Your task to perform on an android device: add a label to a message in the gmail app Image 0: 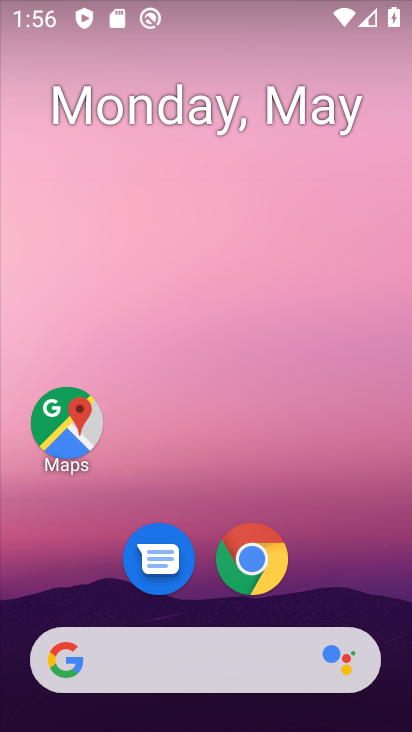
Step 0: drag from (308, 693) to (242, 27)
Your task to perform on an android device: add a label to a message in the gmail app Image 1: 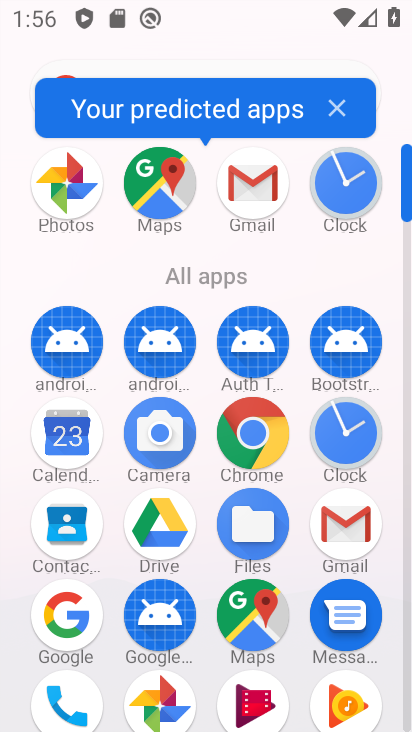
Step 1: click (238, 204)
Your task to perform on an android device: add a label to a message in the gmail app Image 2: 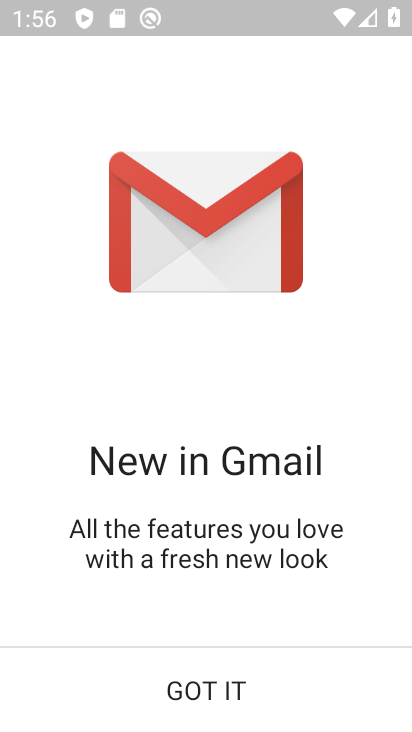
Step 2: click (219, 688)
Your task to perform on an android device: add a label to a message in the gmail app Image 3: 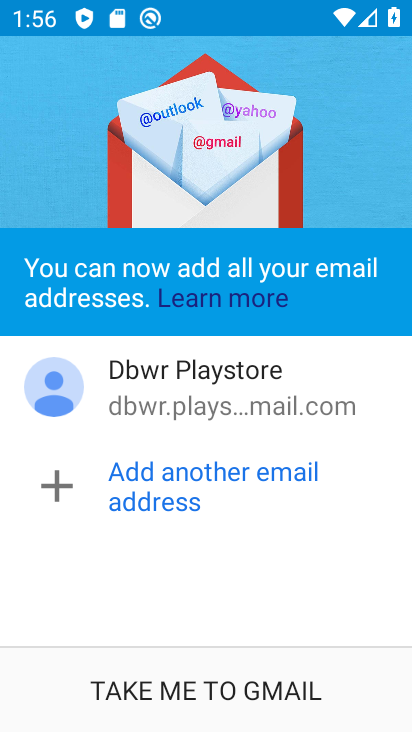
Step 3: click (193, 677)
Your task to perform on an android device: add a label to a message in the gmail app Image 4: 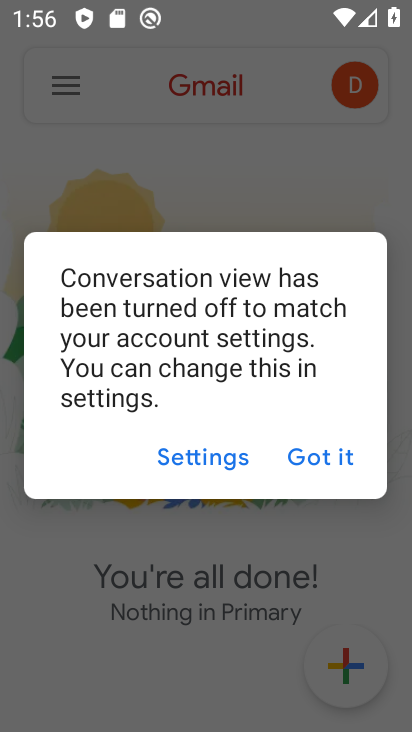
Step 4: click (301, 454)
Your task to perform on an android device: add a label to a message in the gmail app Image 5: 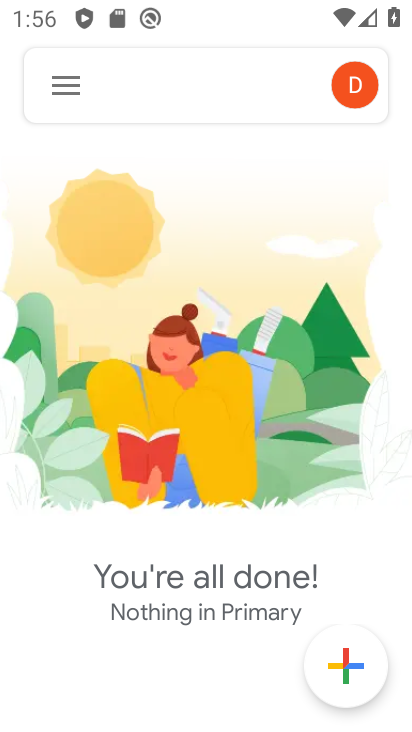
Step 5: click (83, 94)
Your task to perform on an android device: add a label to a message in the gmail app Image 6: 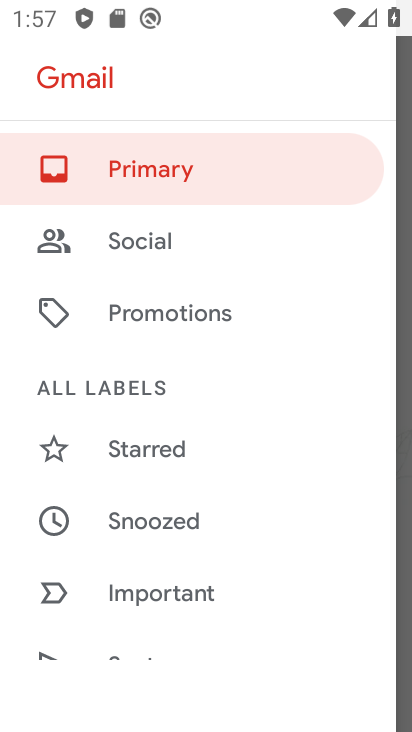
Step 6: drag from (162, 529) to (205, 185)
Your task to perform on an android device: add a label to a message in the gmail app Image 7: 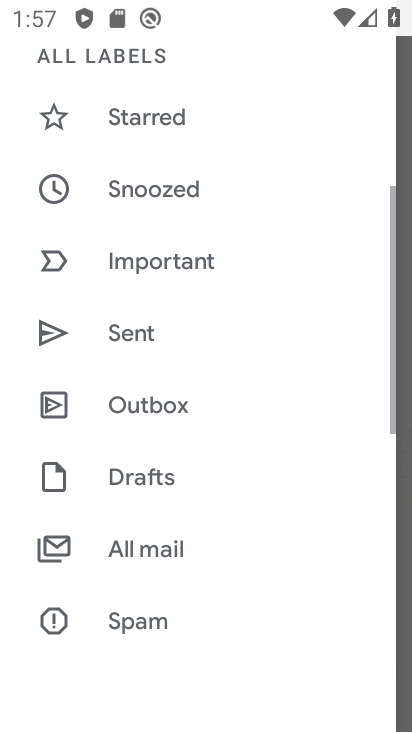
Step 7: drag from (144, 562) to (184, 138)
Your task to perform on an android device: add a label to a message in the gmail app Image 8: 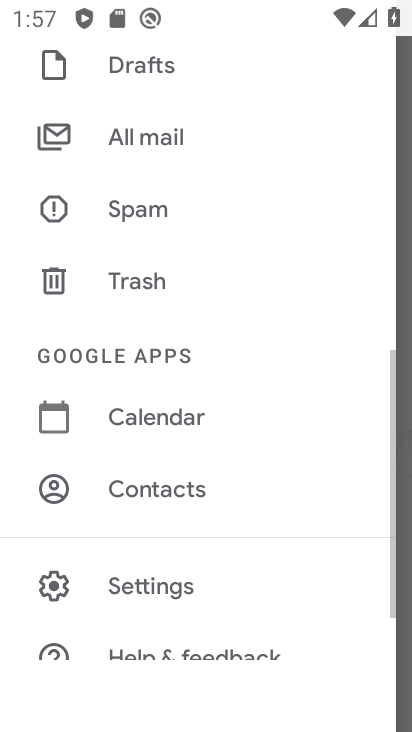
Step 8: drag from (137, 545) to (179, 220)
Your task to perform on an android device: add a label to a message in the gmail app Image 9: 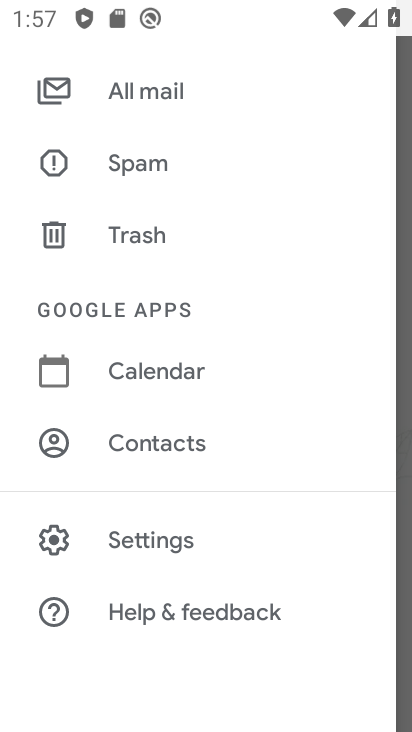
Step 9: click (129, 528)
Your task to perform on an android device: add a label to a message in the gmail app Image 10: 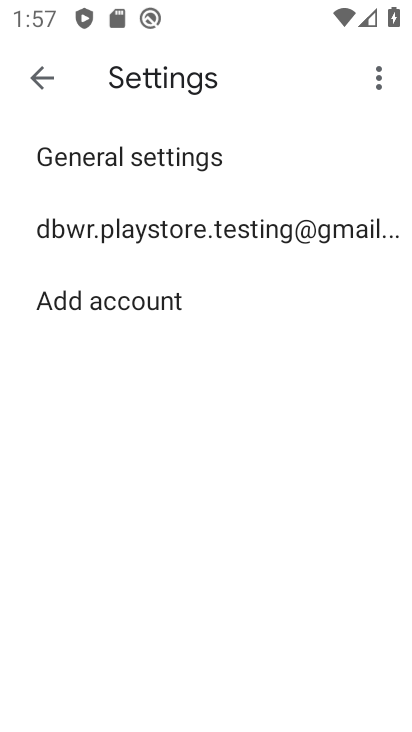
Step 10: click (136, 222)
Your task to perform on an android device: add a label to a message in the gmail app Image 11: 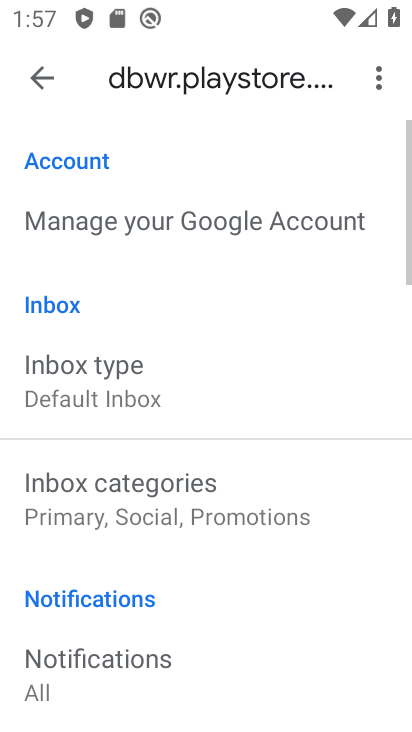
Step 11: drag from (158, 652) to (208, 346)
Your task to perform on an android device: add a label to a message in the gmail app Image 12: 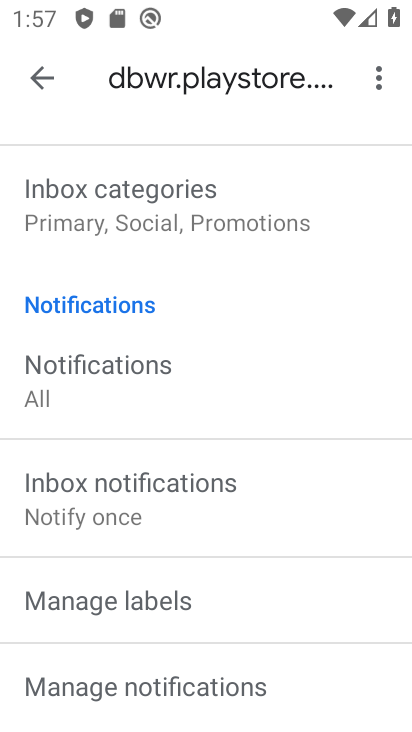
Step 12: click (133, 610)
Your task to perform on an android device: add a label to a message in the gmail app Image 13: 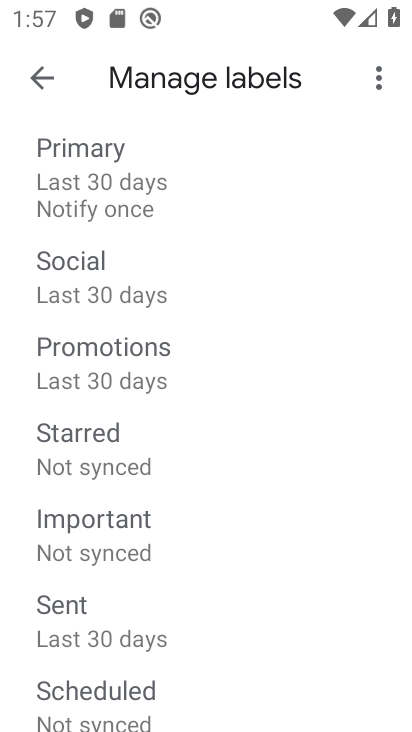
Step 13: click (161, 498)
Your task to perform on an android device: add a label to a message in the gmail app Image 14: 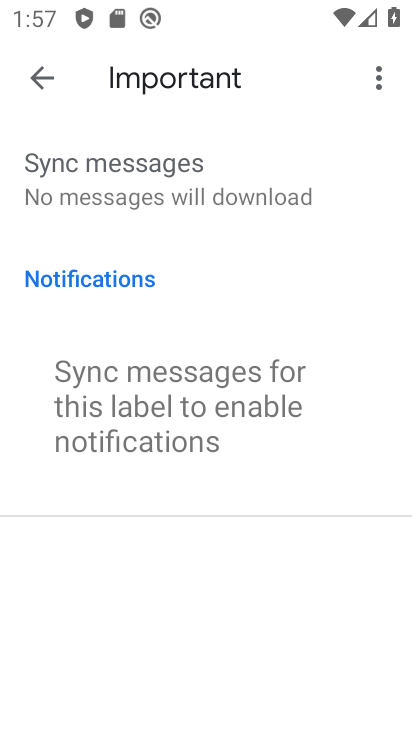
Step 14: task complete